Your task to perform on an android device: open a bookmark in the chrome app Image 0: 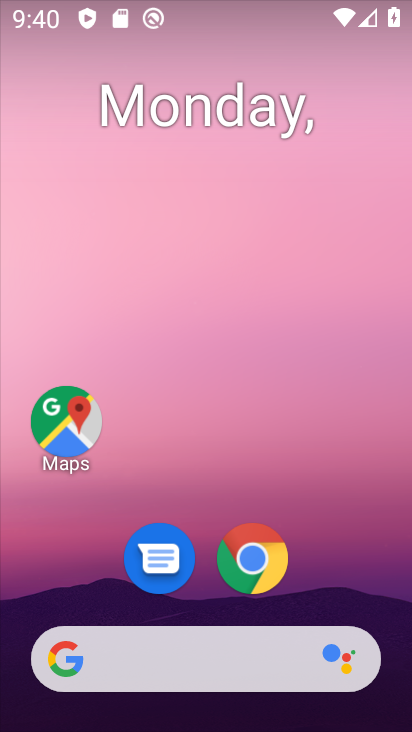
Step 0: drag from (352, 551) to (342, 163)
Your task to perform on an android device: open a bookmark in the chrome app Image 1: 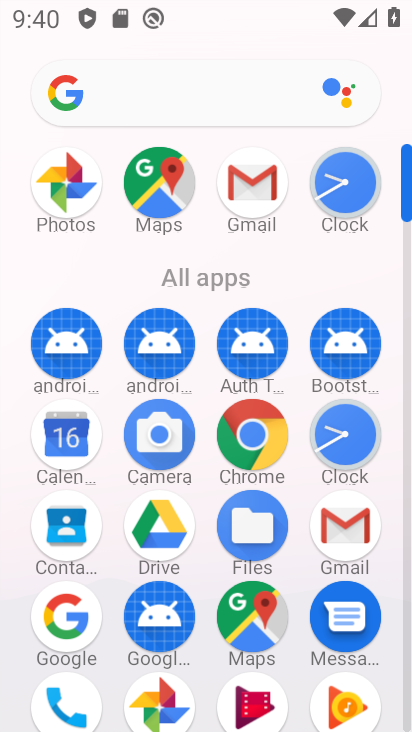
Step 1: click (266, 454)
Your task to perform on an android device: open a bookmark in the chrome app Image 2: 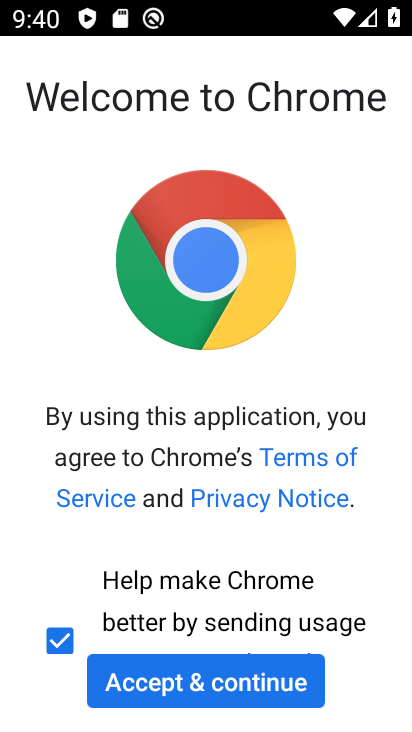
Step 2: click (261, 692)
Your task to perform on an android device: open a bookmark in the chrome app Image 3: 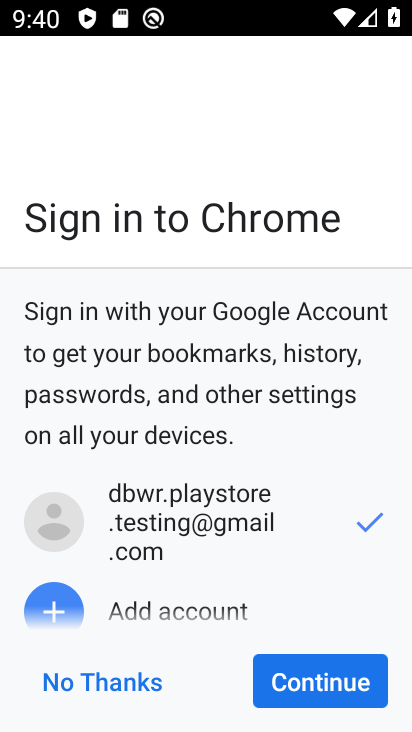
Step 3: click (338, 675)
Your task to perform on an android device: open a bookmark in the chrome app Image 4: 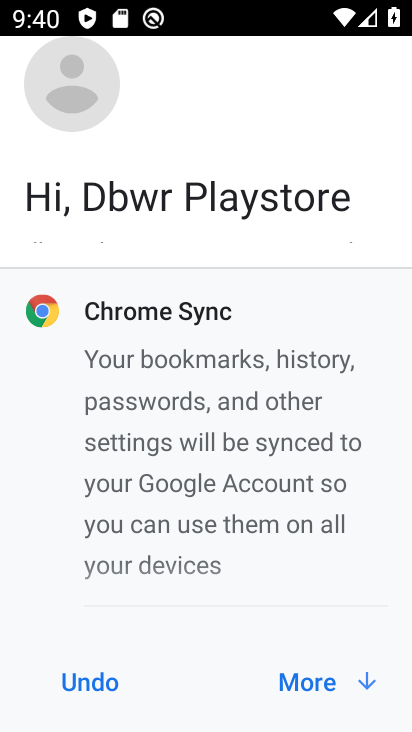
Step 4: click (343, 689)
Your task to perform on an android device: open a bookmark in the chrome app Image 5: 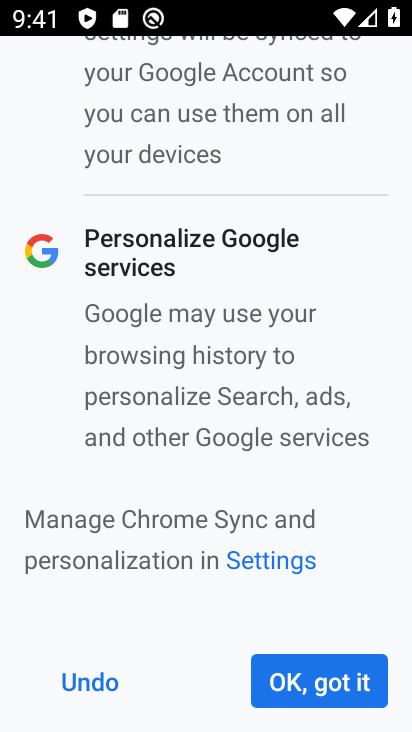
Step 5: click (347, 701)
Your task to perform on an android device: open a bookmark in the chrome app Image 6: 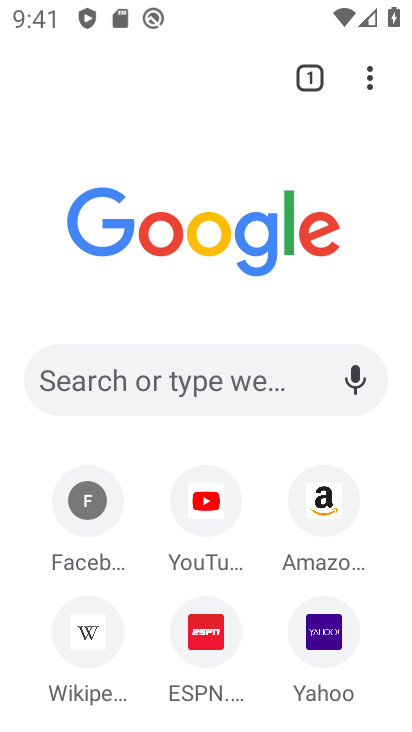
Step 6: click (347, 701)
Your task to perform on an android device: open a bookmark in the chrome app Image 7: 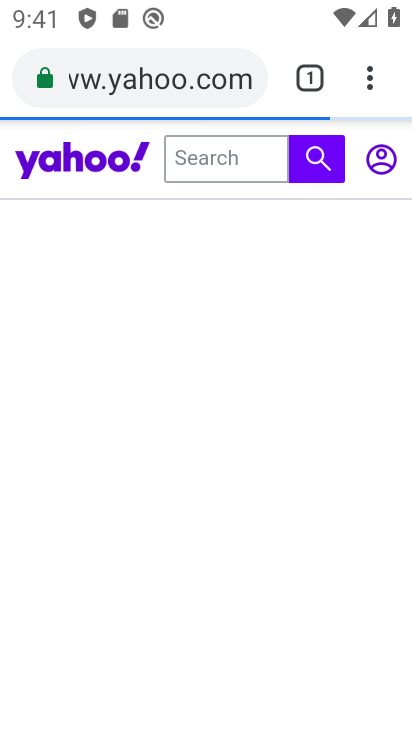
Step 7: click (370, 81)
Your task to perform on an android device: open a bookmark in the chrome app Image 8: 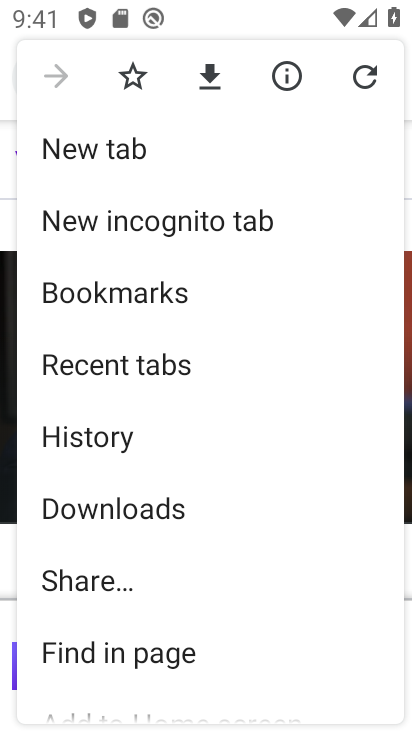
Step 8: click (160, 282)
Your task to perform on an android device: open a bookmark in the chrome app Image 9: 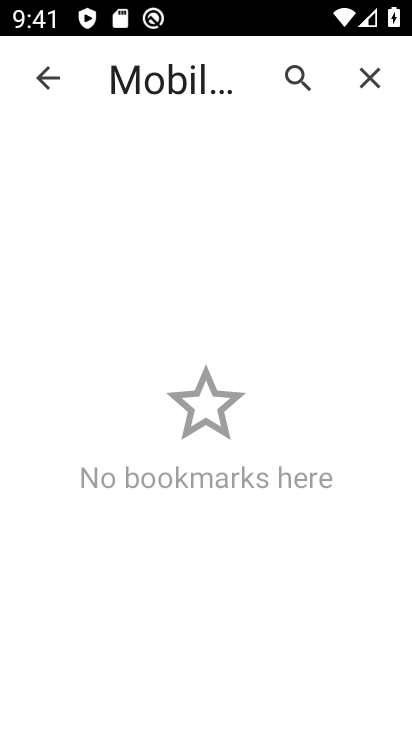
Step 9: task complete